Your task to perform on an android device: Open location settings Image 0: 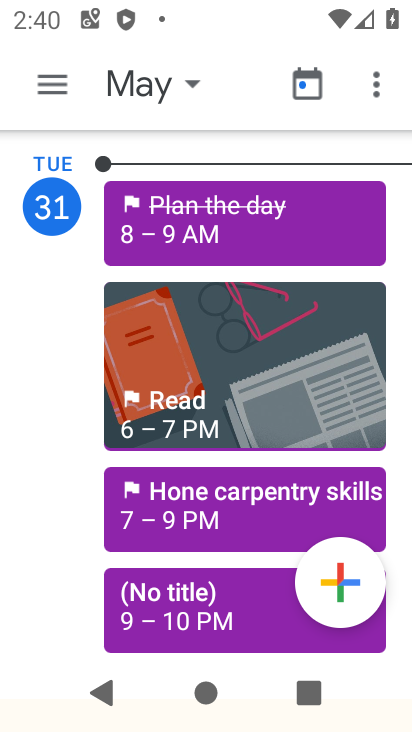
Step 0: task complete